Your task to perform on an android device: Go to Reddit.com Image 0: 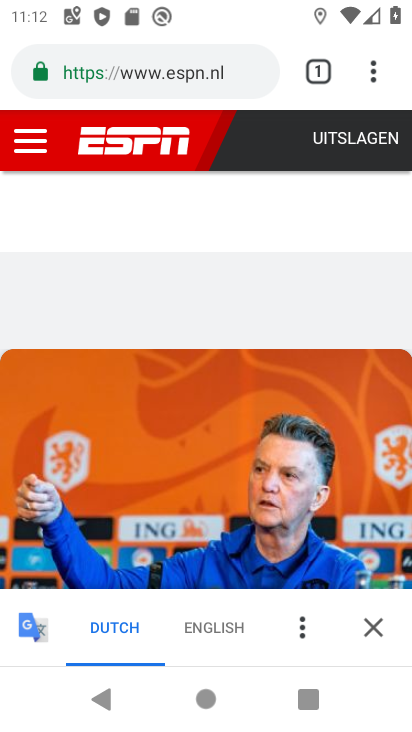
Step 0: press home button
Your task to perform on an android device: Go to Reddit.com Image 1: 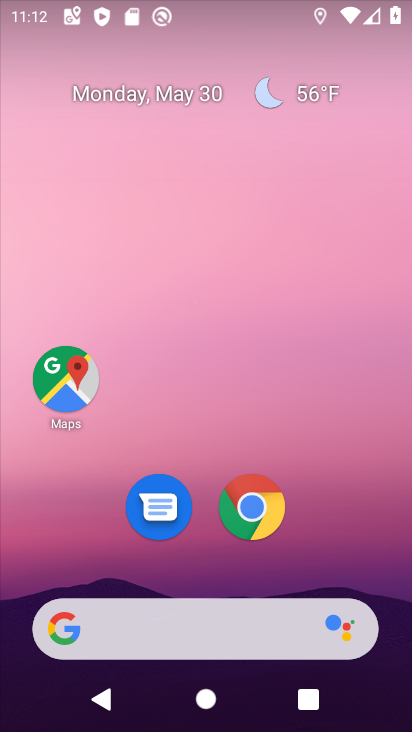
Step 1: click (261, 510)
Your task to perform on an android device: Go to Reddit.com Image 2: 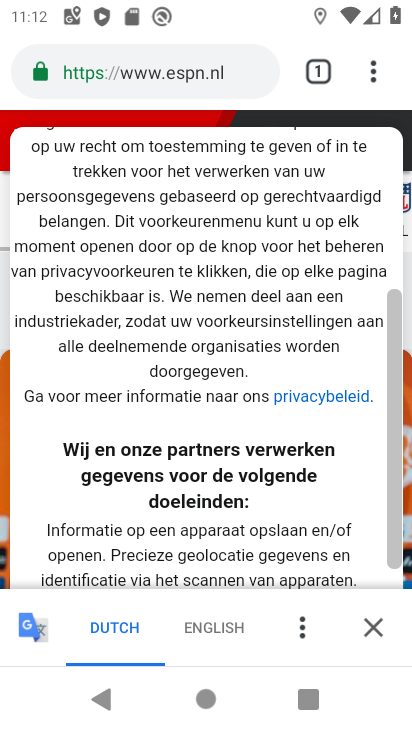
Step 2: click (321, 68)
Your task to perform on an android device: Go to Reddit.com Image 3: 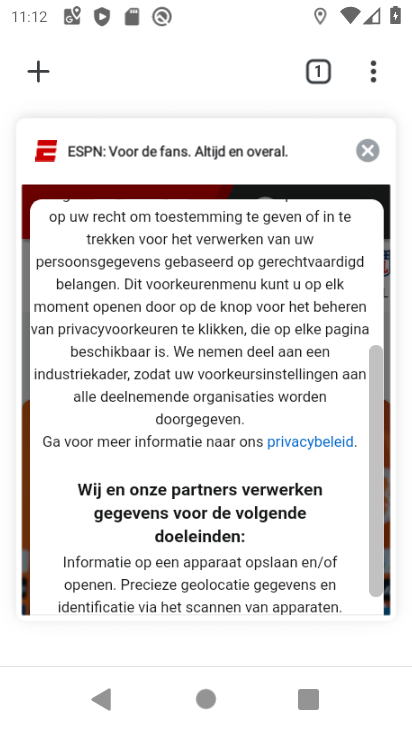
Step 3: click (375, 139)
Your task to perform on an android device: Go to Reddit.com Image 4: 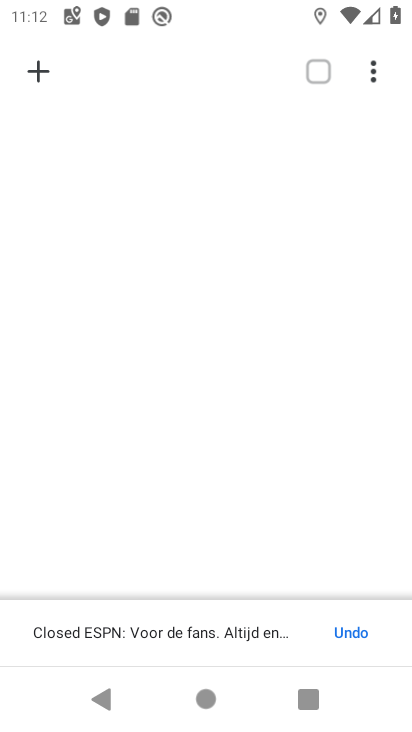
Step 4: click (39, 65)
Your task to perform on an android device: Go to Reddit.com Image 5: 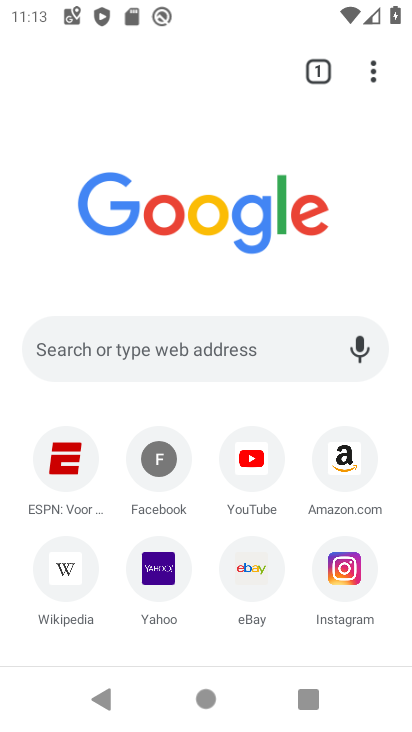
Step 5: click (248, 354)
Your task to perform on an android device: Go to Reddit.com Image 6: 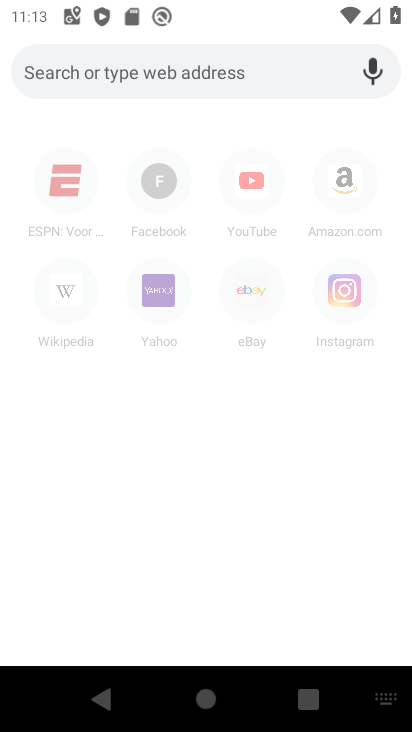
Step 6: type "reddit.com"
Your task to perform on an android device: Go to Reddit.com Image 7: 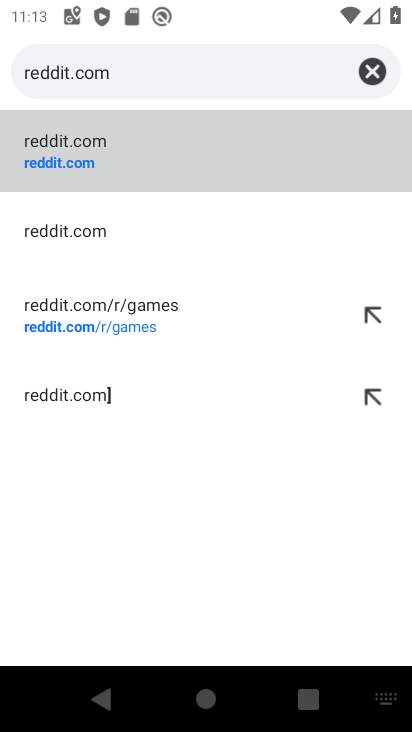
Step 7: click (168, 158)
Your task to perform on an android device: Go to Reddit.com Image 8: 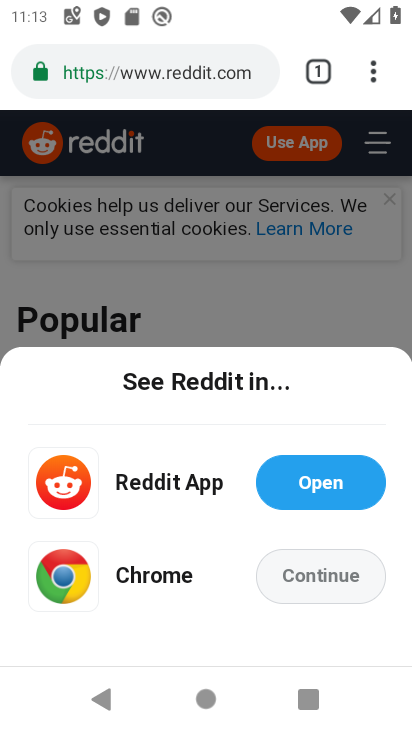
Step 8: click (333, 593)
Your task to perform on an android device: Go to Reddit.com Image 9: 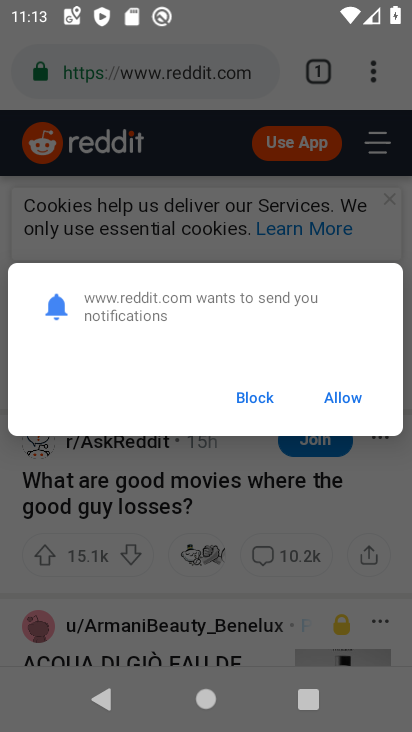
Step 9: click (266, 400)
Your task to perform on an android device: Go to Reddit.com Image 10: 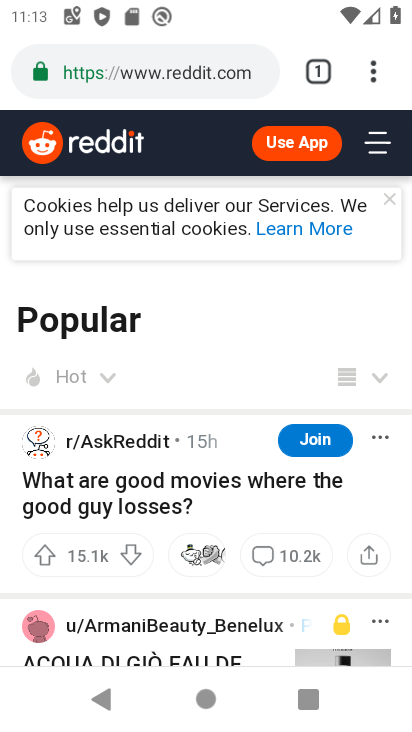
Step 10: task complete